Your task to perform on an android device: star an email in the gmail app Image 0: 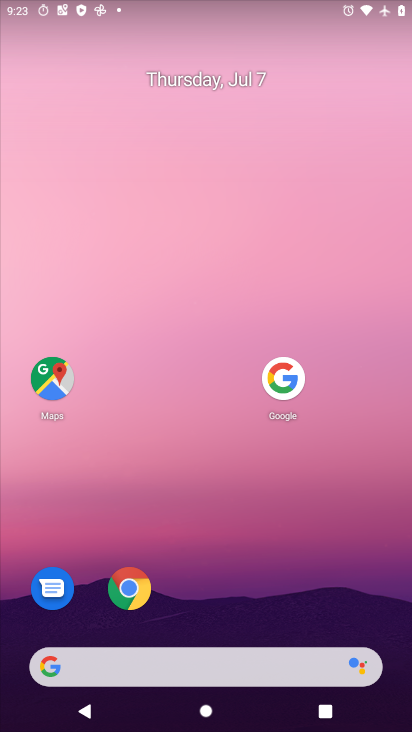
Step 0: drag from (141, 662) to (271, 137)
Your task to perform on an android device: star an email in the gmail app Image 1: 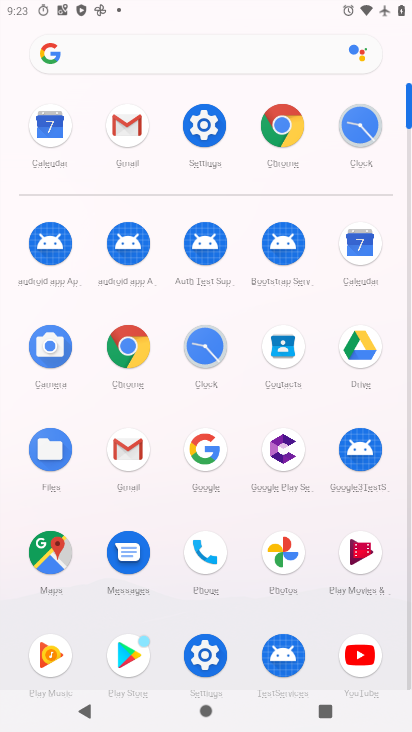
Step 1: click (123, 133)
Your task to perform on an android device: star an email in the gmail app Image 2: 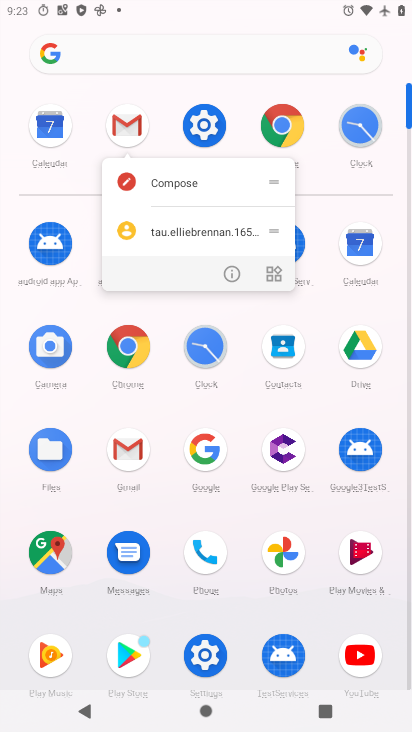
Step 2: click (123, 132)
Your task to perform on an android device: star an email in the gmail app Image 3: 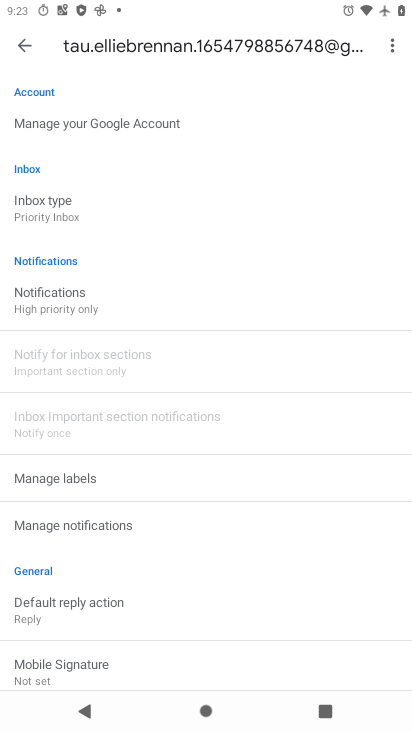
Step 3: click (24, 38)
Your task to perform on an android device: star an email in the gmail app Image 4: 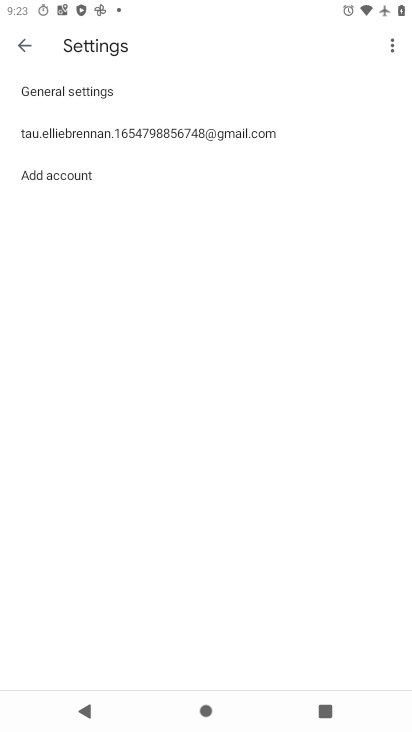
Step 4: click (24, 38)
Your task to perform on an android device: star an email in the gmail app Image 5: 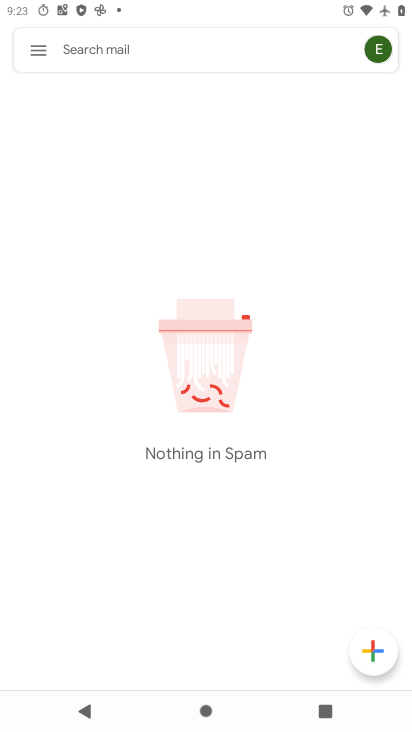
Step 5: click (36, 47)
Your task to perform on an android device: star an email in the gmail app Image 6: 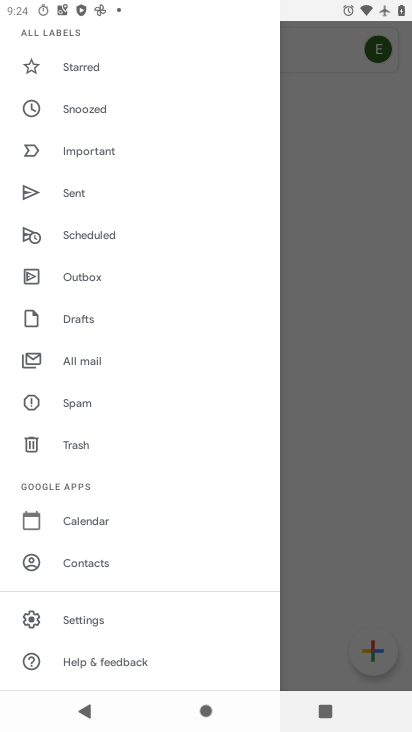
Step 6: click (320, 332)
Your task to perform on an android device: star an email in the gmail app Image 7: 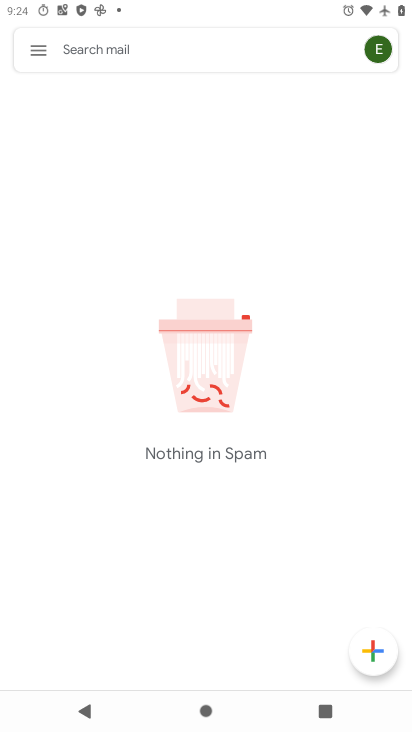
Step 7: click (25, 44)
Your task to perform on an android device: star an email in the gmail app Image 8: 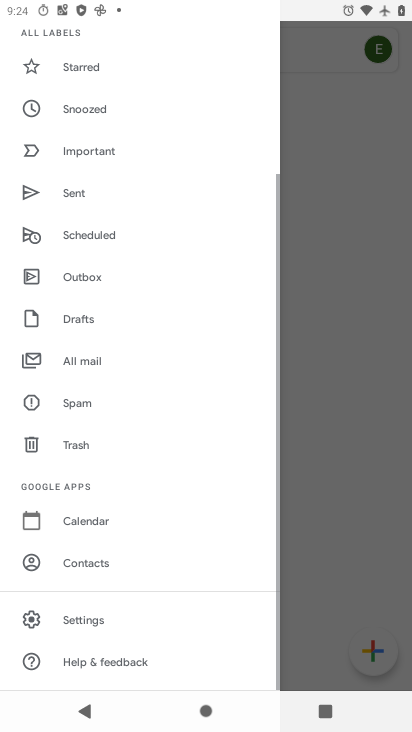
Step 8: drag from (111, 95) to (161, 580)
Your task to perform on an android device: star an email in the gmail app Image 9: 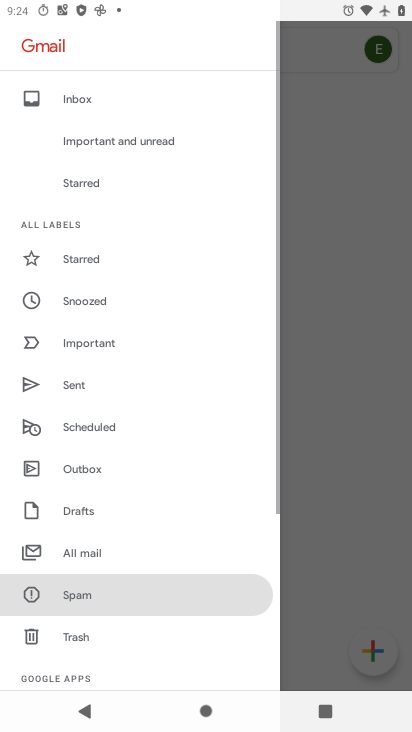
Step 9: drag from (93, 86) to (87, 308)
Your task to perform on an android device: star an email in the gmail app Image 10: 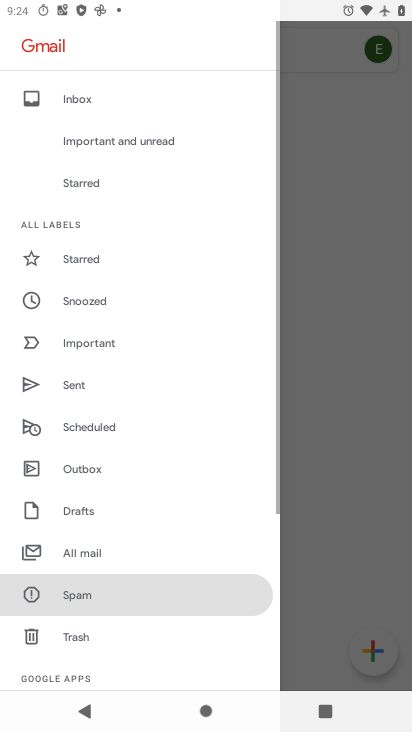
Step 10: click (64, 99)
Your task to perform on an android device: star an email in the gmail app Image 11: 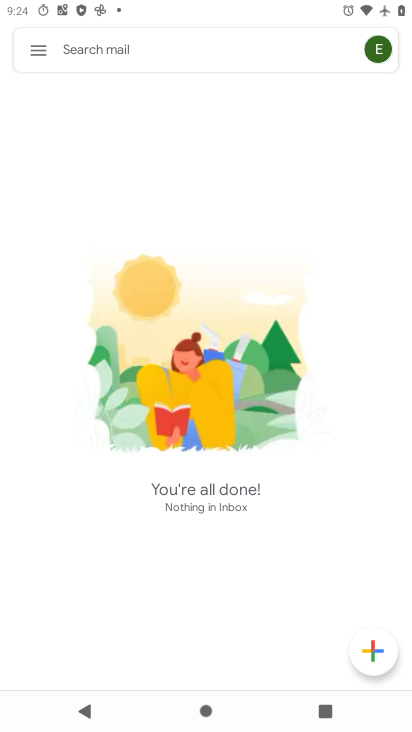
Step 11: task complete